Your task to perform on an android device: Open the stopwatch Image 0: 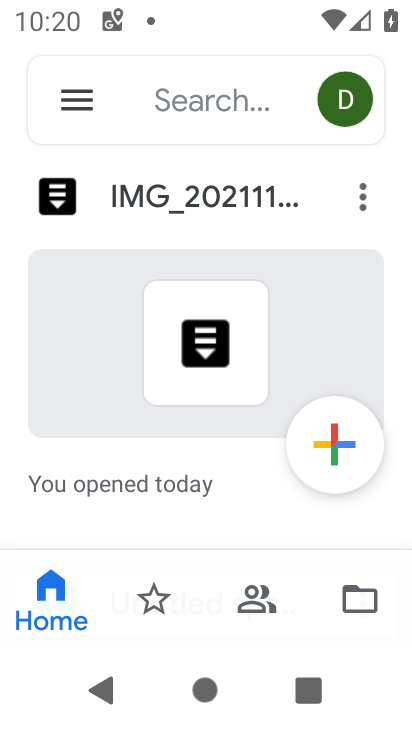
Step 0: press home button
Your task to perform on an android device: Open the stopwatch Image 1: 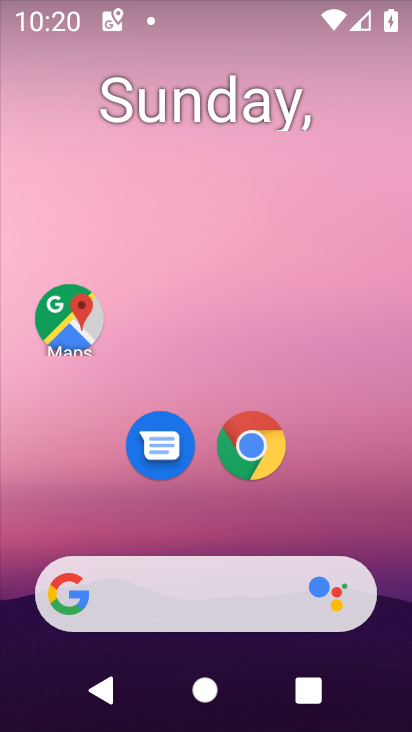
Step 1: drag from (332, 495) to (359, 71)
Your task to perform on an android device: Open the stopwatch Image 2: 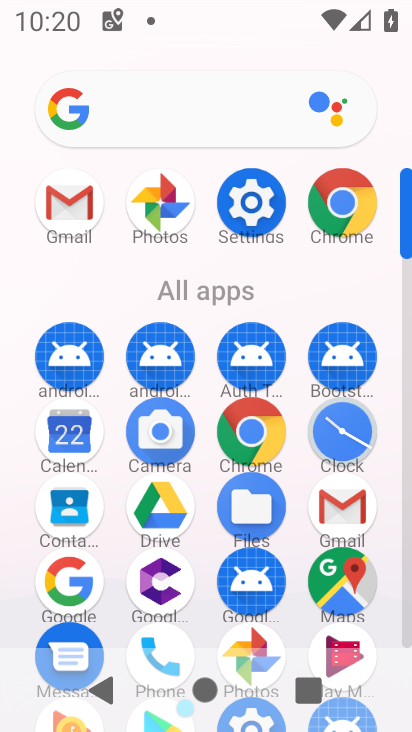
Step 2: click (340, 437)
Your task to perform on an android device: Open the stopwatch Image 3: 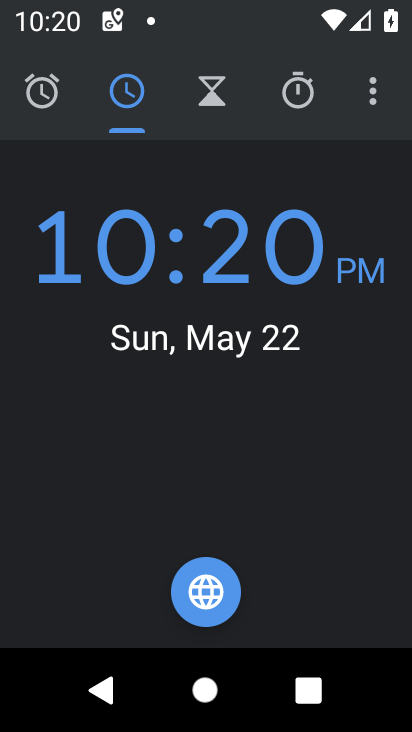
Step 3: click (301, 89)
Your task to perform on an android device: Open the stopwatch Image 4: 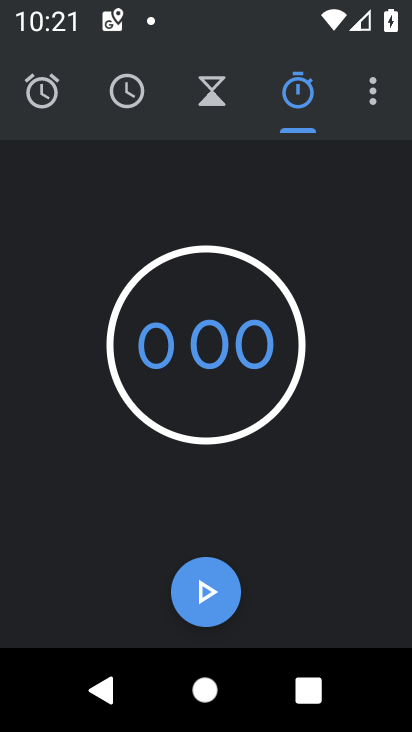
Step 4: task complete